Your task to perform on an android device: Clear the shopping cart on target. Add beats solo 3 to the cart on target Image 0: 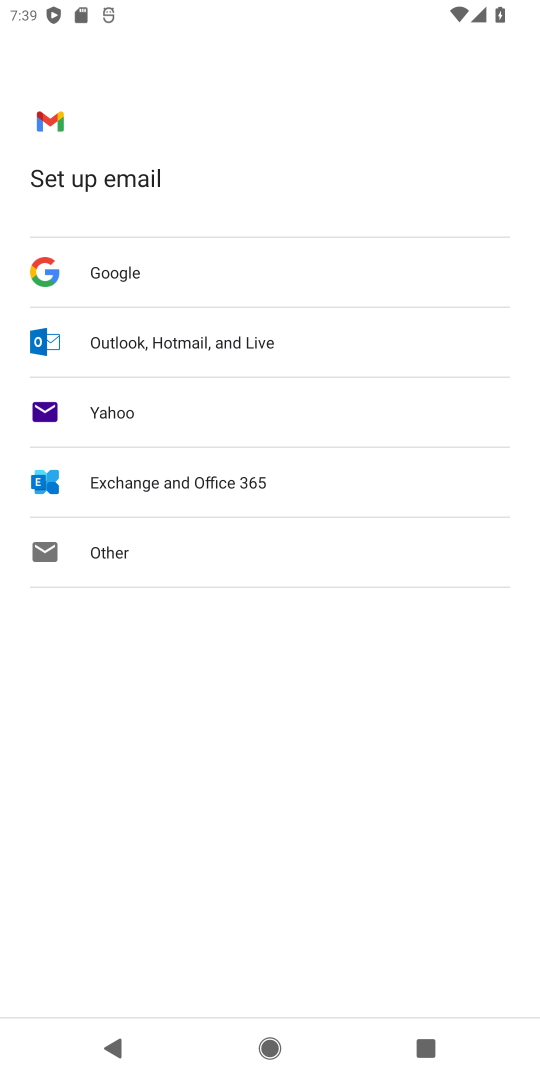
Step 0: press home button
Your task to perform on an android device: Clear the shopping cart on target. Add beats solo 3 to the cart on target Image 1: 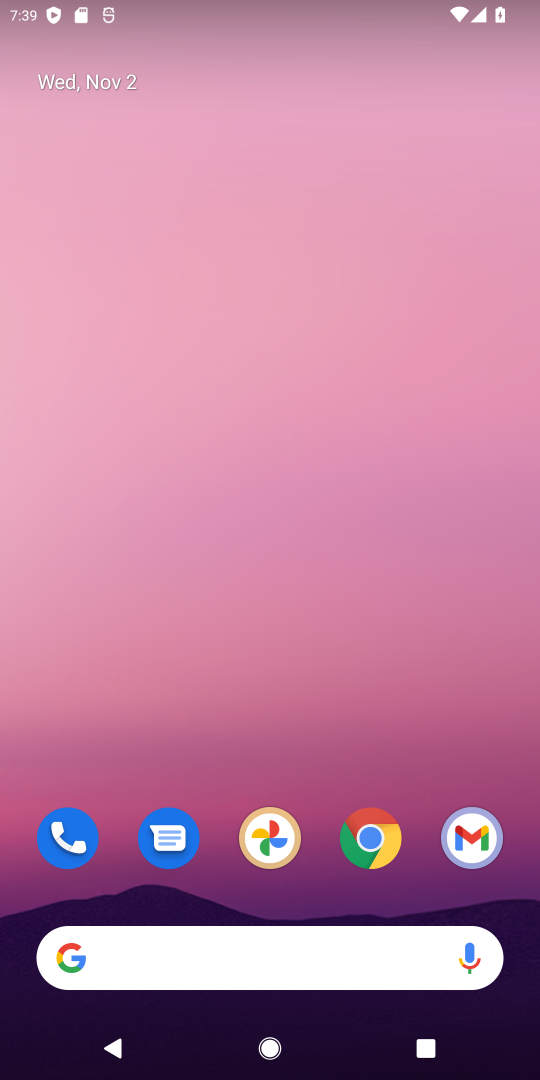
Step 1: click (382, 850)
Your task to perform on an android device: Clear the shopping cart on target. Add beats solo 3 to the cart on target Image 2: 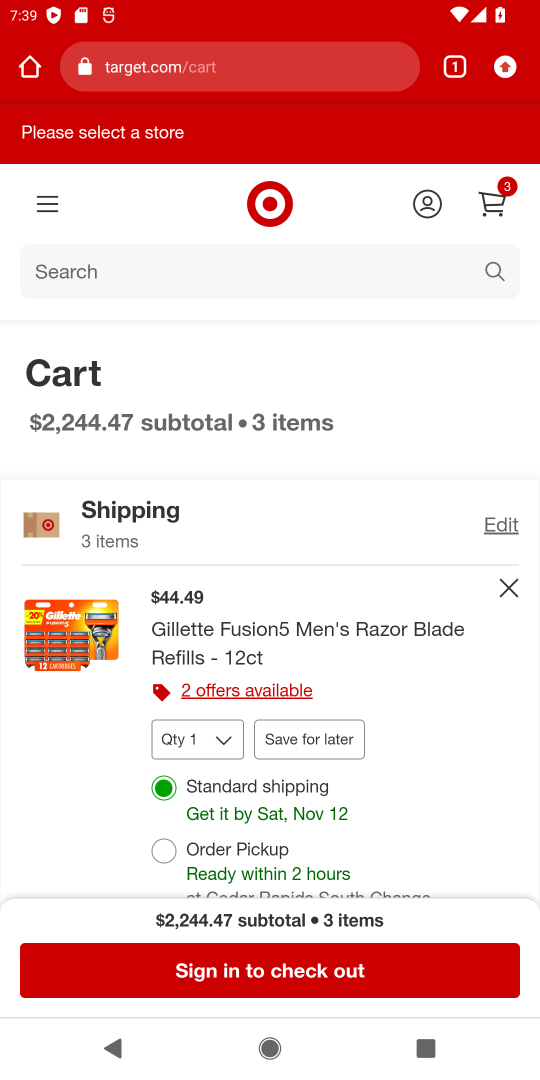
Step 2: click (235, 61)
Your task to perform on an android device: Clear the shopping cart on target. Add beats solo 3 to the cart on target Image 3: 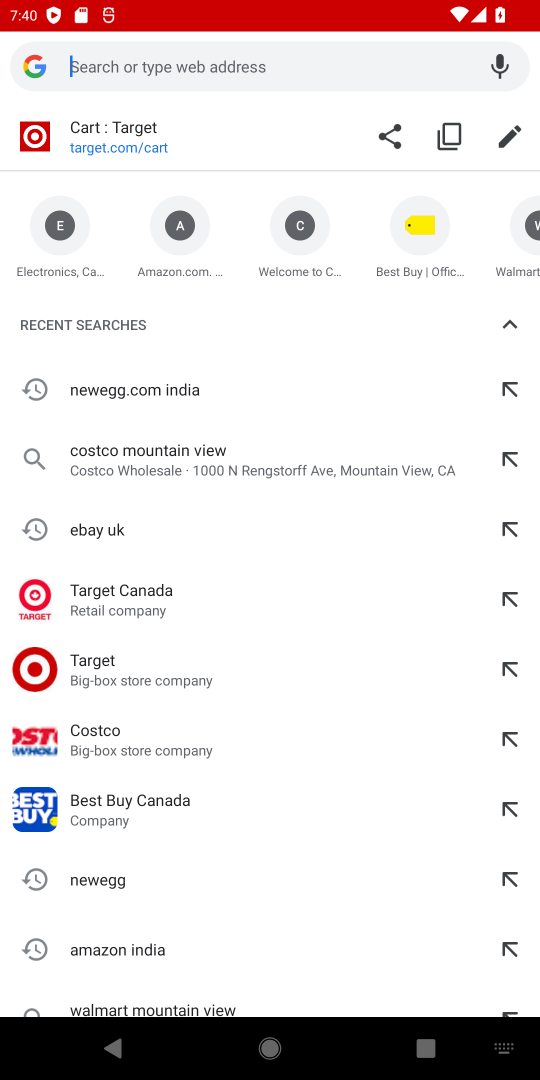
Step 3: type "target"
Your task to perform on an android device: Clear the shopping cart on target. Add beats solo 3 to the cart on target Image 4: 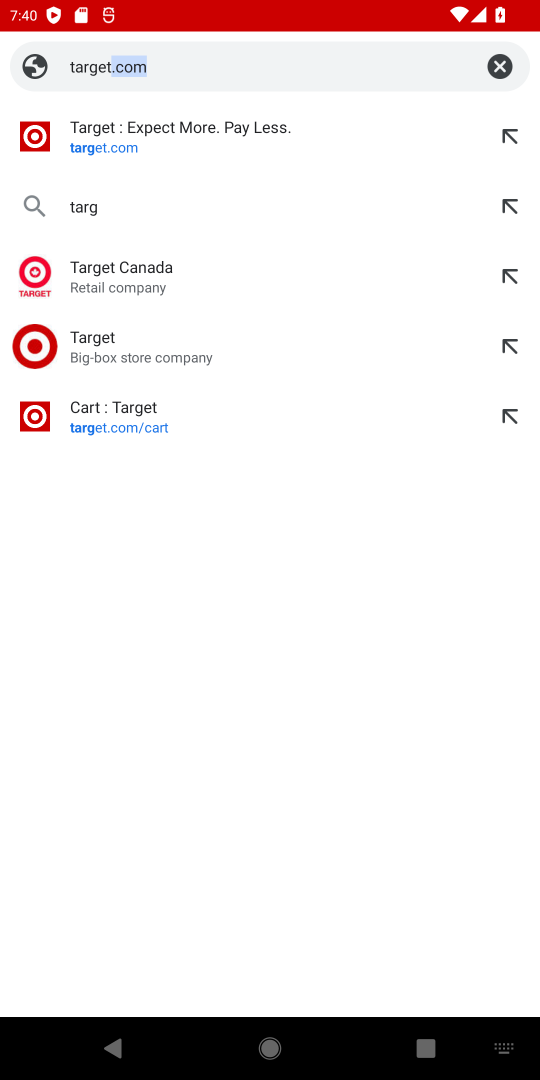
Step 4: type ""
Your task to perform on an android device: Clear the shopping cart on target. Add beats solo 3 to the cart on target Image 5: 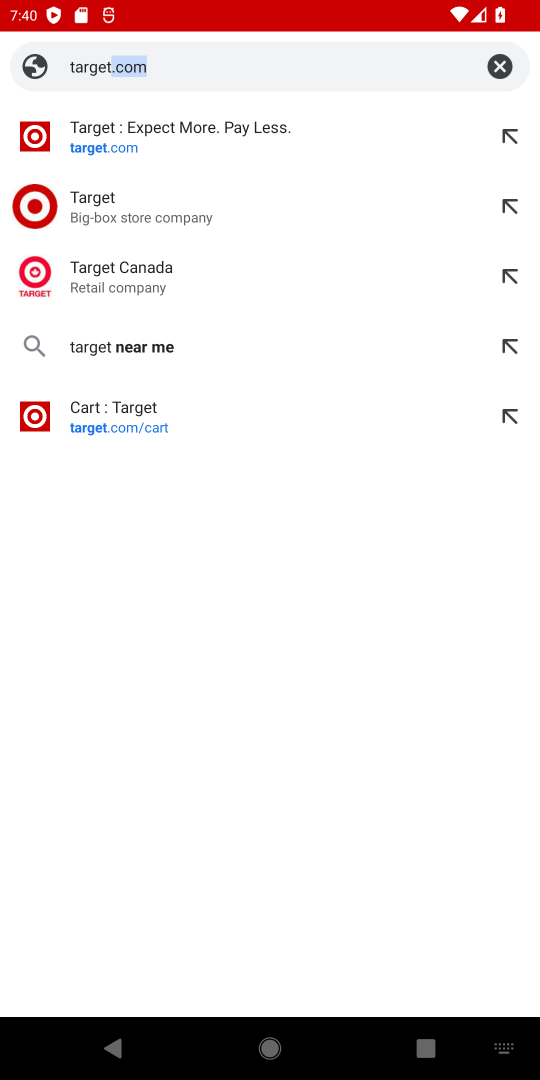
Step 5: press enter
Your task to perform on an android device: Clear the shopping cart on target. Add beats solo 3 to the cart on target Image 6: 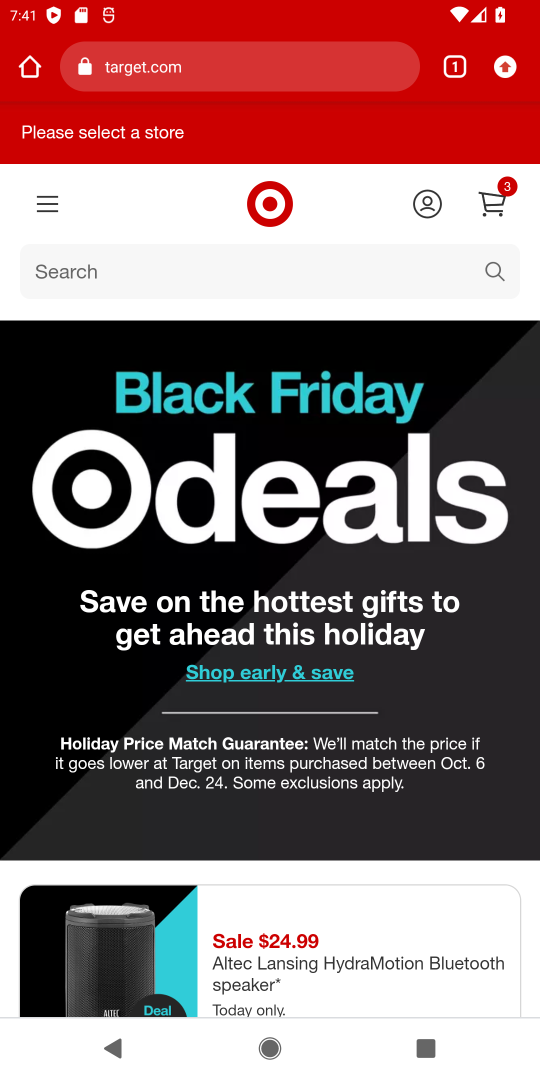
Step 6: click (488, 197)
Your task to perform on an android device: Clear the shopping cart on target. Add beats solo 3 to the cart on target Image 7: 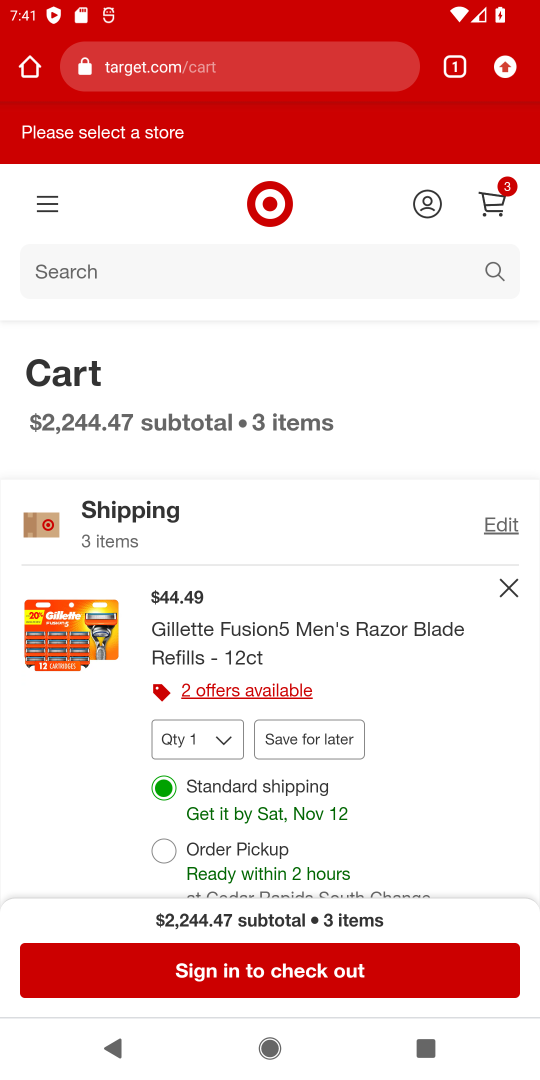
Step 7: click (508, 587)
Your task to perform on an android device: Clear the shopping cart on target. Add beats solo 3 to the cart on target Image 8: 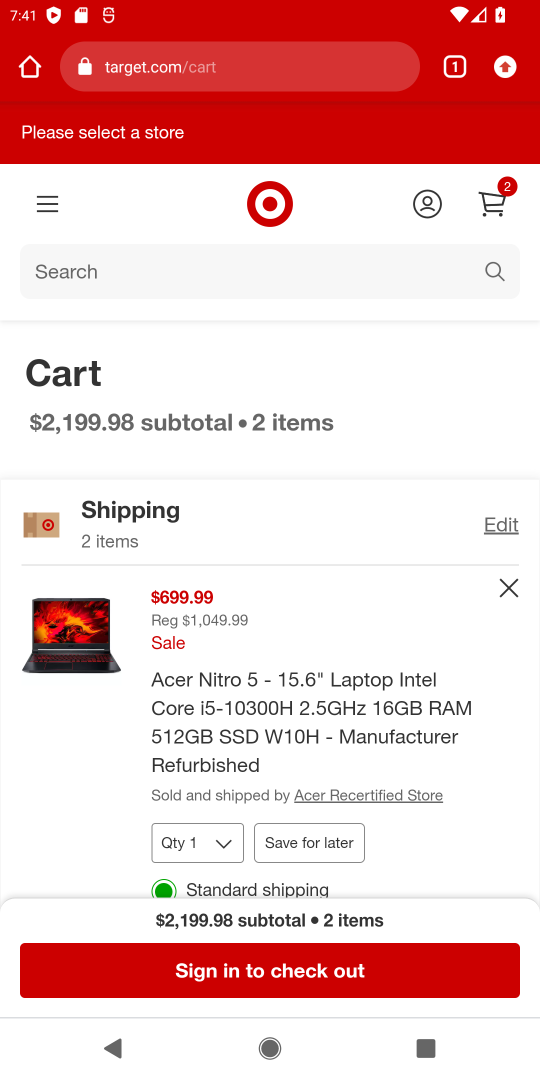
Step 8: click (508, 587)
Your task to perform on an android device: Clear the shopping cart on target. Add beats solo 3 to the cart on target Image 9: 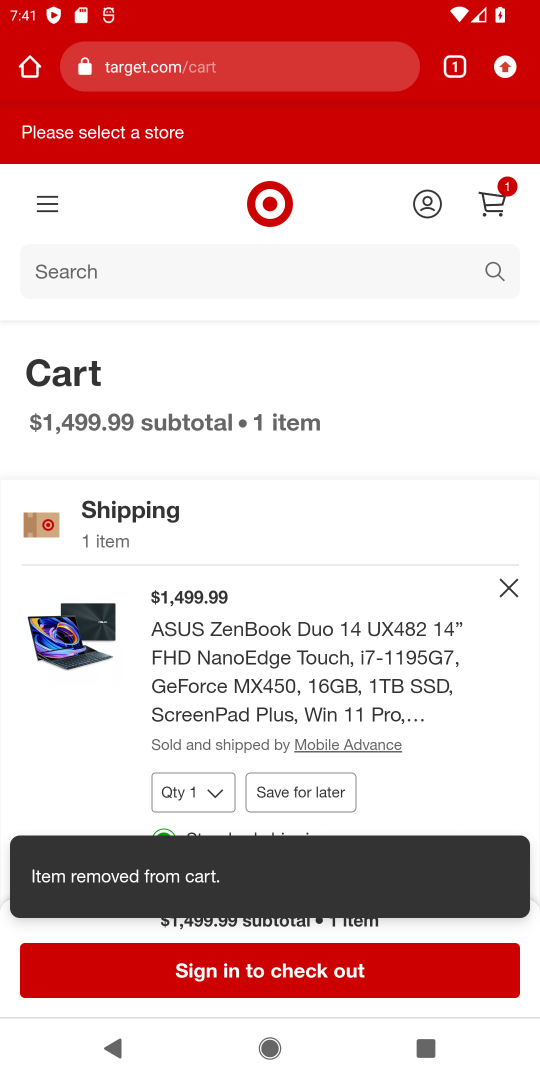
Step 9: click (508, 587)
Your task to perform on an android device: Clear the shopping cart on target. Add beats solo 3 to the cart on target Image 10: 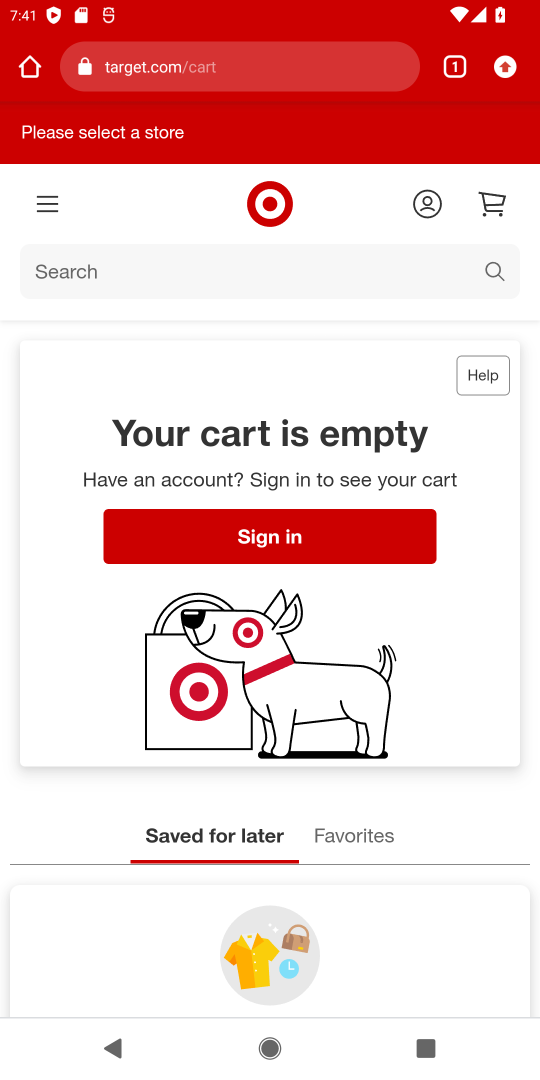
Step 10: click (265, 265)
Your task to perform on an android device: Clear the shopping cart on target. Add beats solo 3 to the cart on target Image 11: 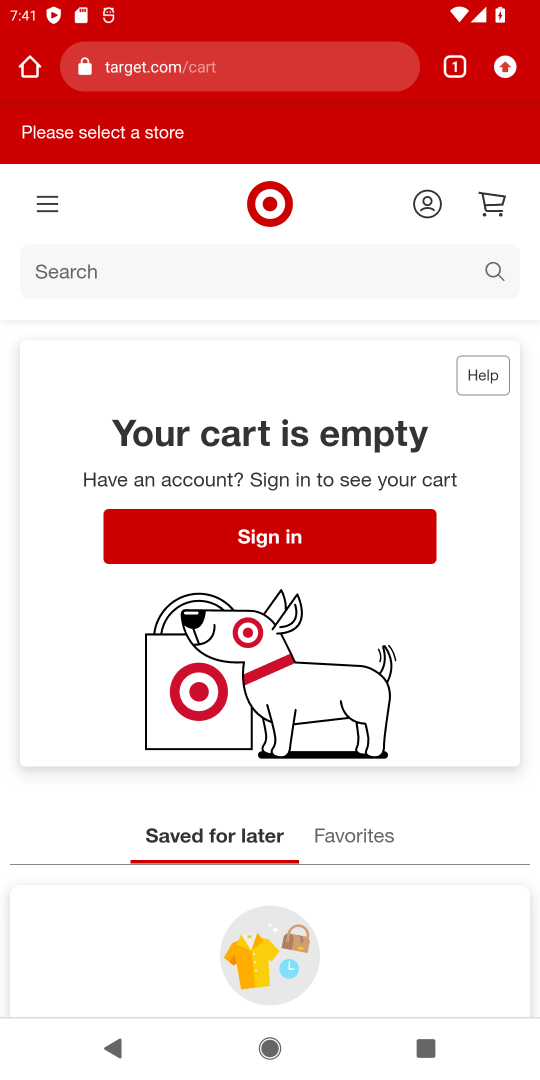
Step 11: type "beats solo 3"
Your task to perform on an android device: Clear the shopping cart on target. Add beats solo 3 to the cart on target Image 12: 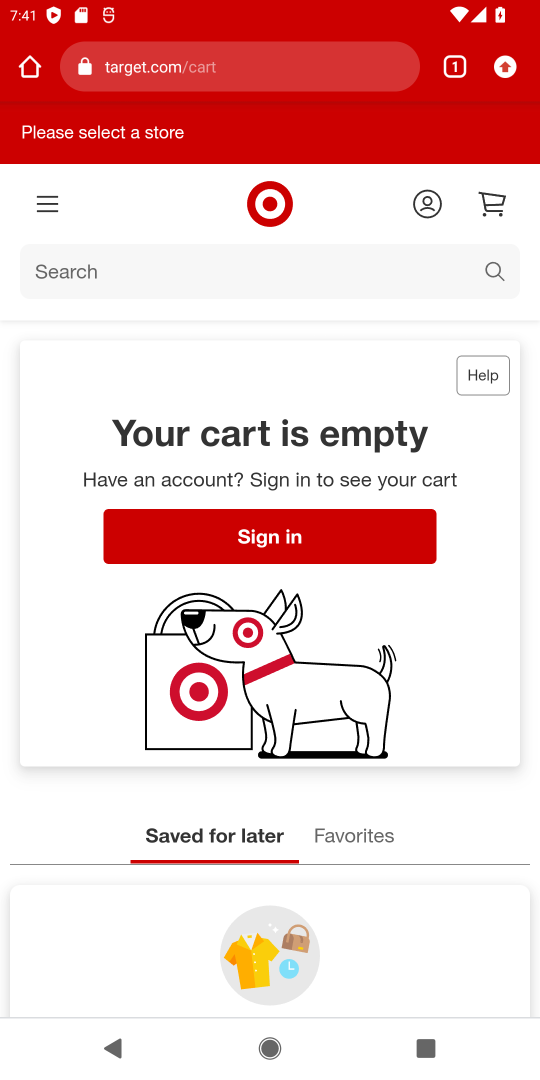
Step 12: type ""
Your task to perform on an android device: Clear the shopping cart on target. Add beats solo 3 to the cart on target Image 13: 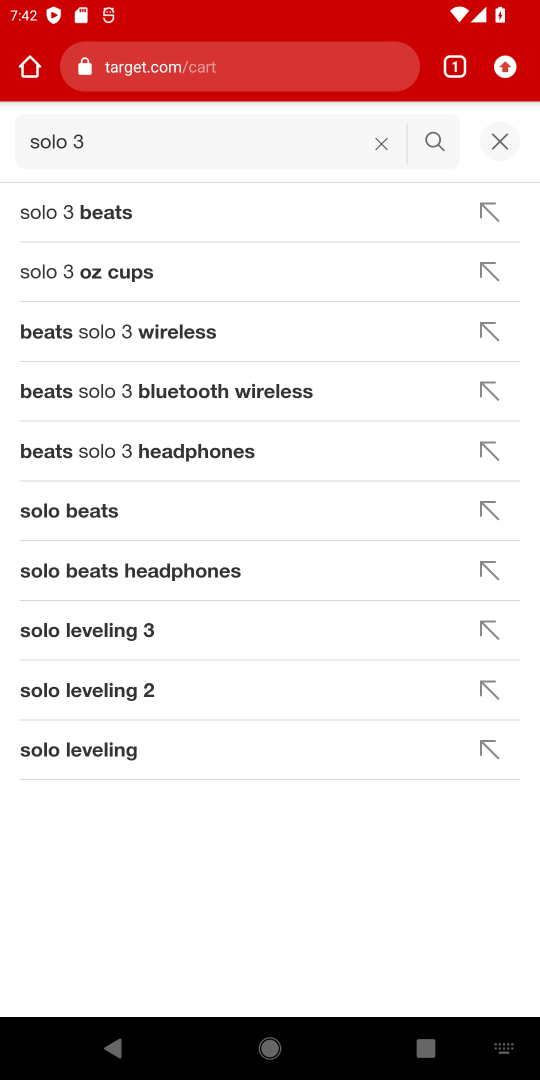
Step 13: click (376, 142)
Your task to perform on an android device: Clear the shopping cart on target. Add beats solo 3 to the cart on target Image 14: 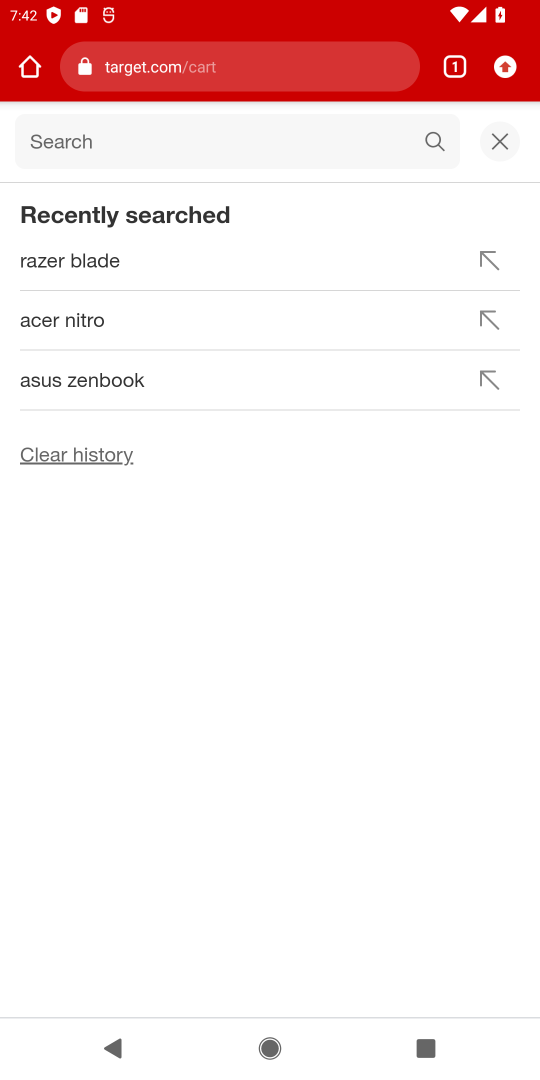
Step 14: type "beats solo 3"
Your task to perform on an android device: Clear the shopping cart on target. Add beats solo 3 to the cart on target Image 15: 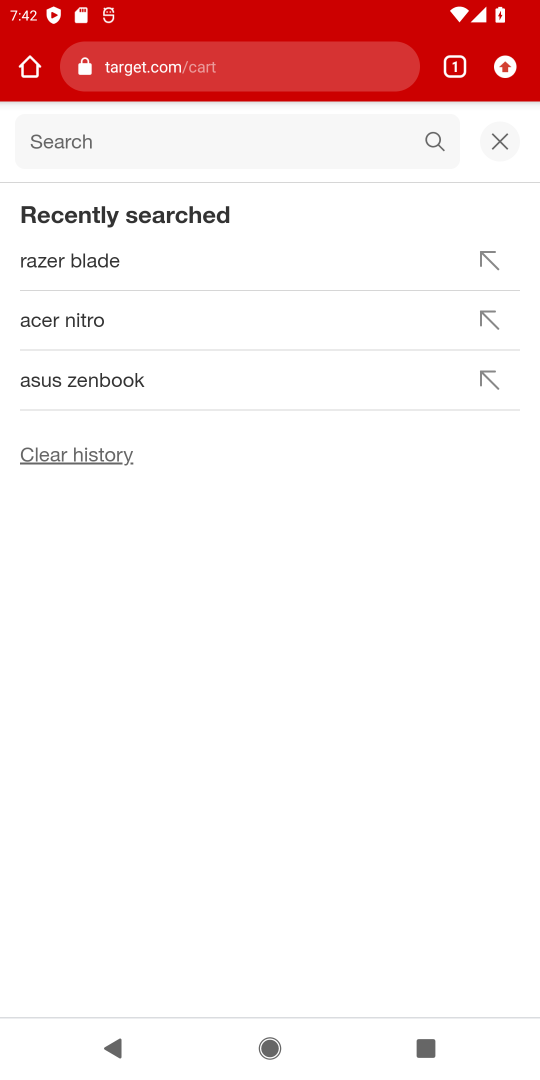
Step 15: type ""
Your task to perform on an android device: Clear the shopping cart on target. Add beats solo 3 to the cart on target Image 16: 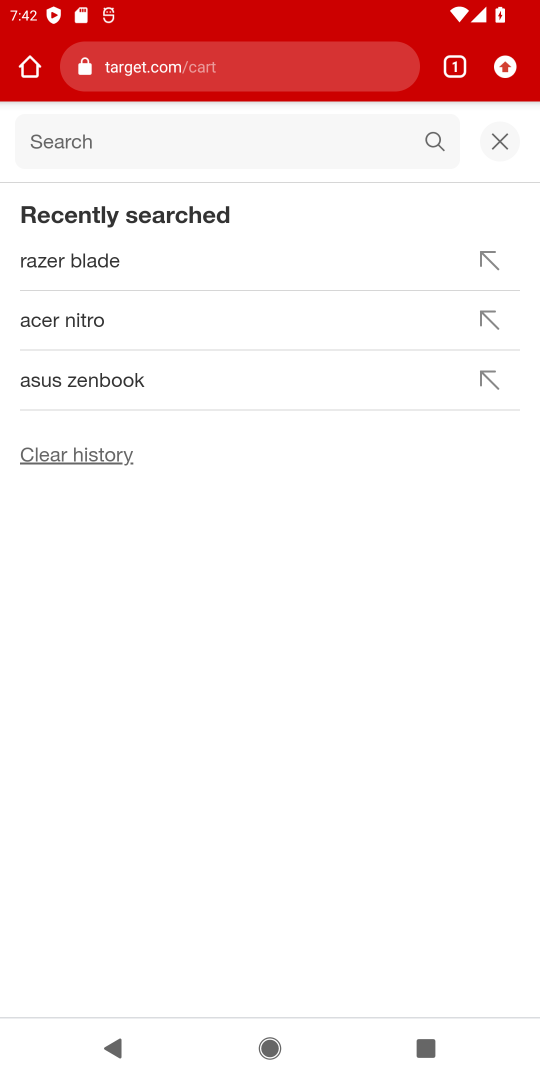
Step 16: click (497, 137)
Your task to perform on an android device: Clear the shopping cart on target. Add beats solo 3 to the cart on target Image 17: 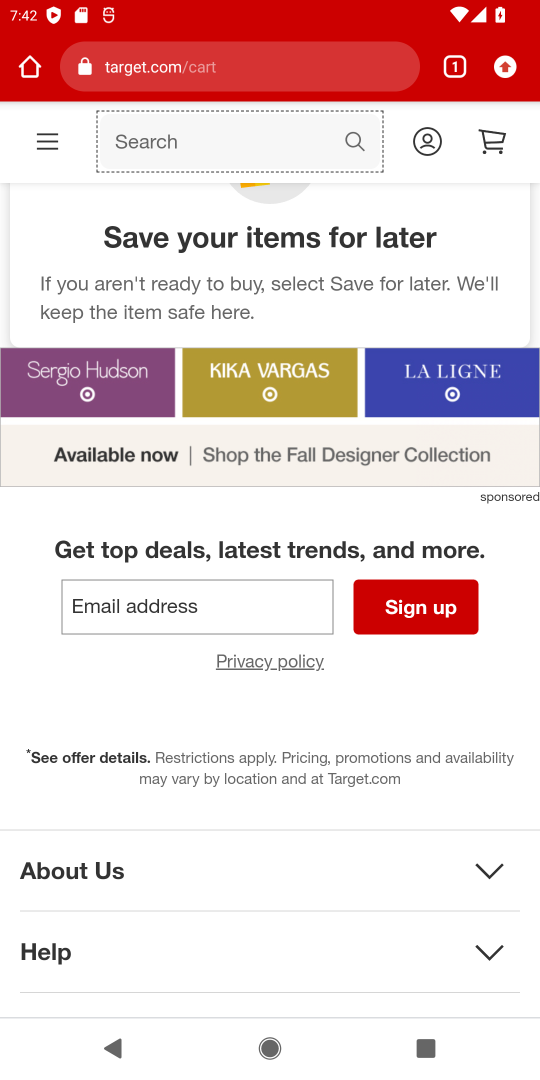
Step 17: click (148, 138)
Your task to perform on an android device: Clear the shopping cart on target. Add beats solo 3 to the cart on target Image 18: 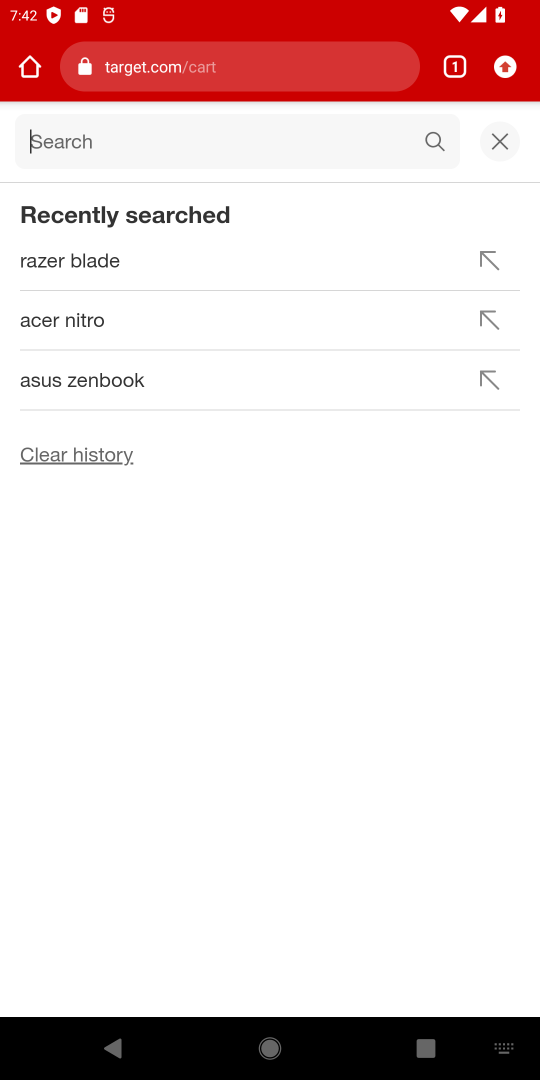
Step 18: type "beats solo 3"
Your task to perform on an android device: Clear the shopping cart on target. Add beats solo 3 to the cart on target Image 19: 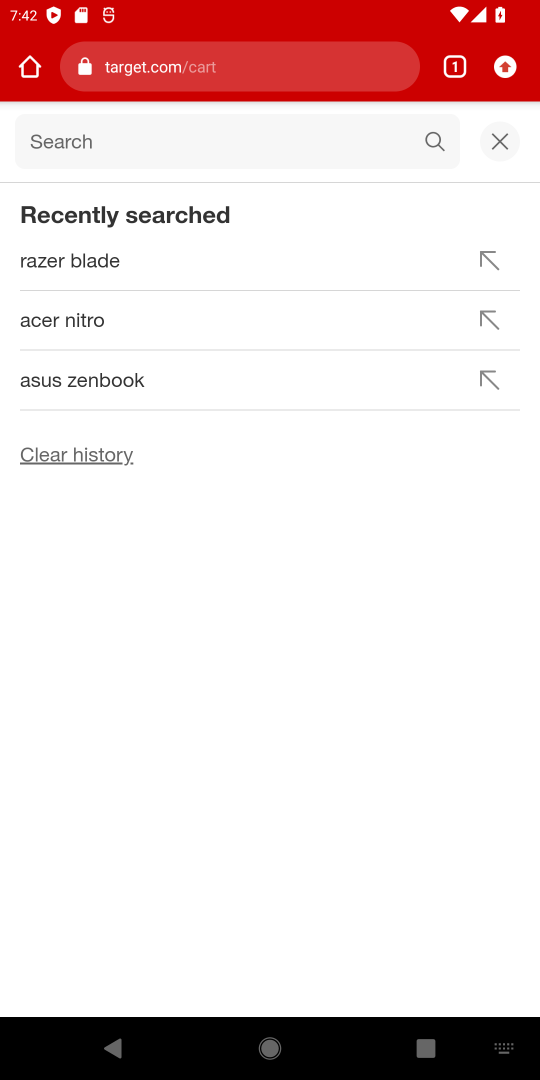
Step 19: type ""
Your task to perform on an android device: Clear the shopping cart on target. Add beats solo 3 to the cart on target Image 20: 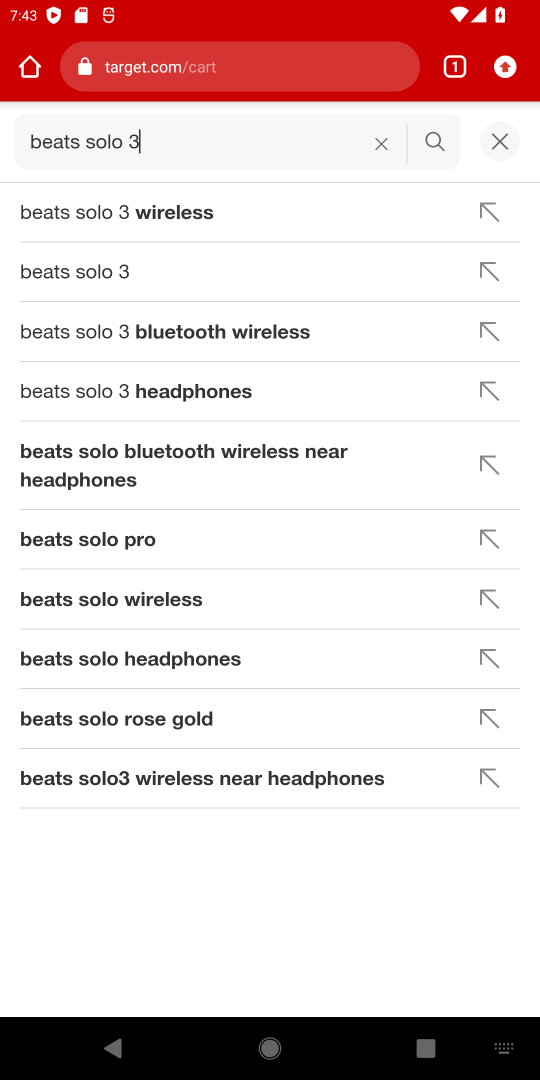
Step 20: press enter
Your task to perform on an android device: Clear the shopping cart on target. Add beats solo 3 to the cart on target Image 21: 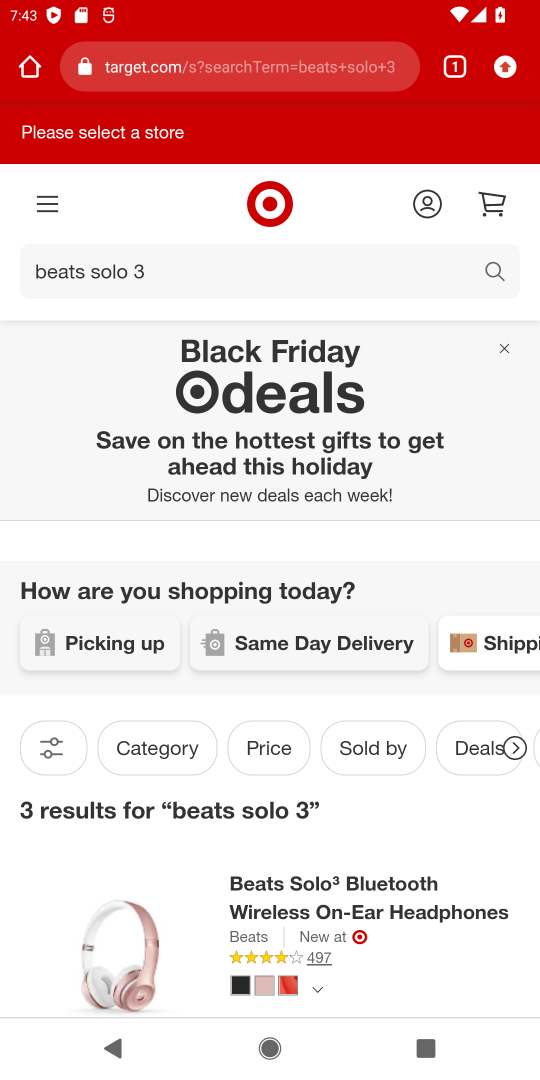
Step 21: drag from (393, 859) to (392, 542)
Your task to perform on an android device: Clear the shopping cart on target. Add beats solo 3 to the cart on target Image 22: 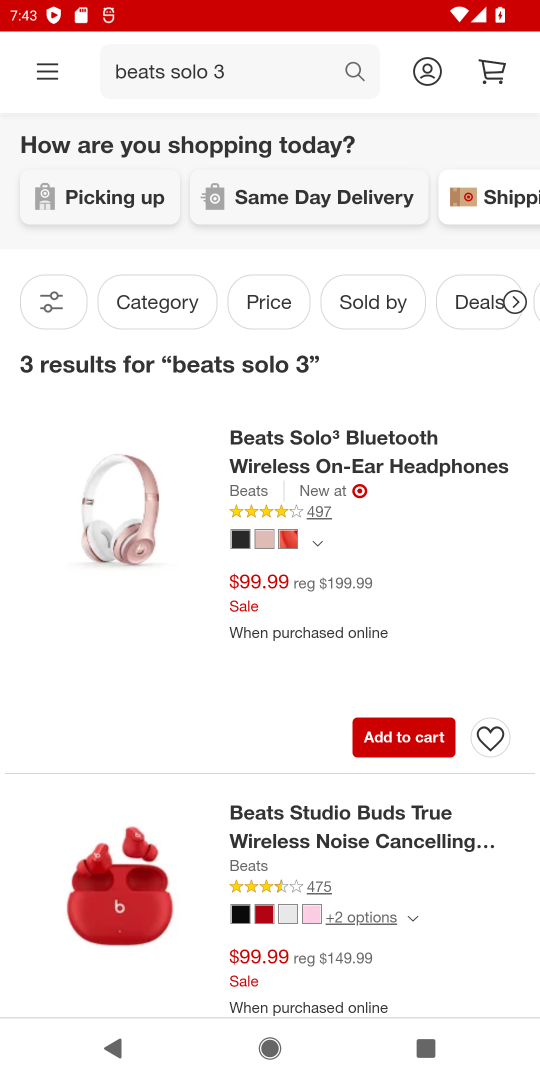
Step 22: click (386, 438)
Your task to perform on an android device: Clear the shopping cart on target. Add beats solo 3 to the cart on target Image 23: 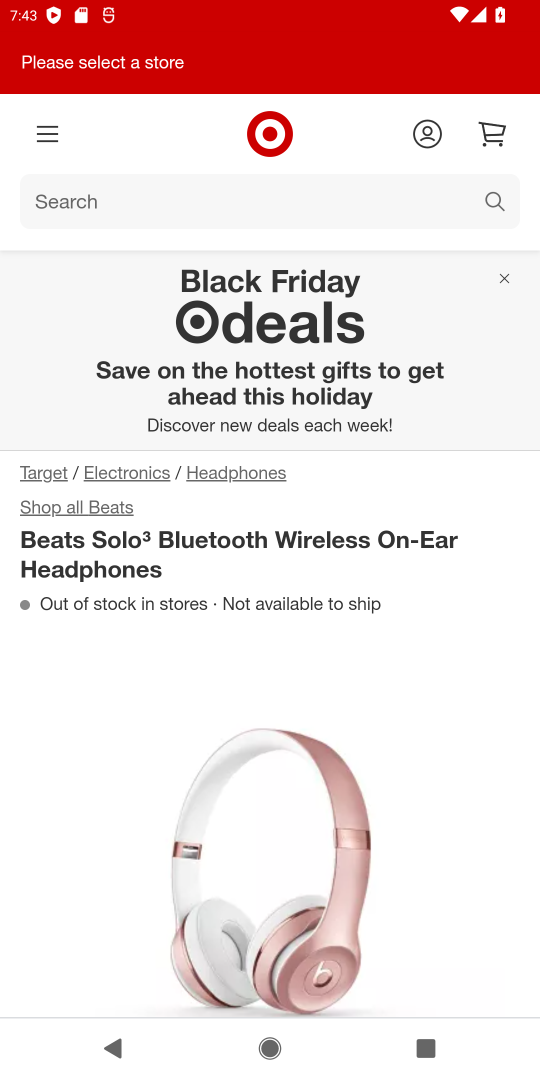
Step 23: drag from (396, 795) to (353, 322)
Your task to perform on an android device: Clear the shopping cart on target. Add beats solo 3 to the cart on target Image 24: 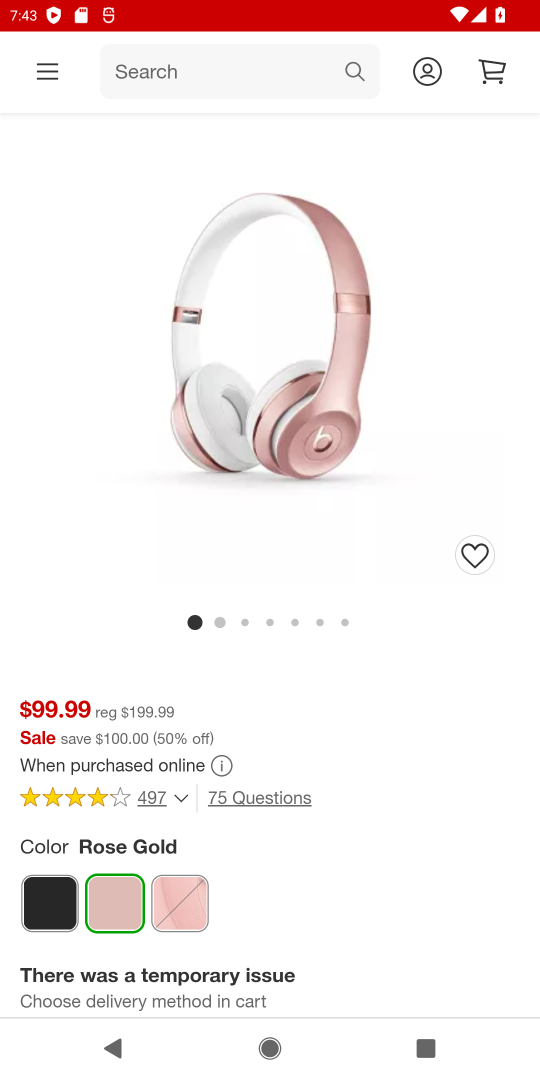
Step 24: drag from (308, 825) to (335, 486)
Your task to perform on an android device: Clear the shopping cart on target. Add beats solo 3 to the cart on target Image 25: 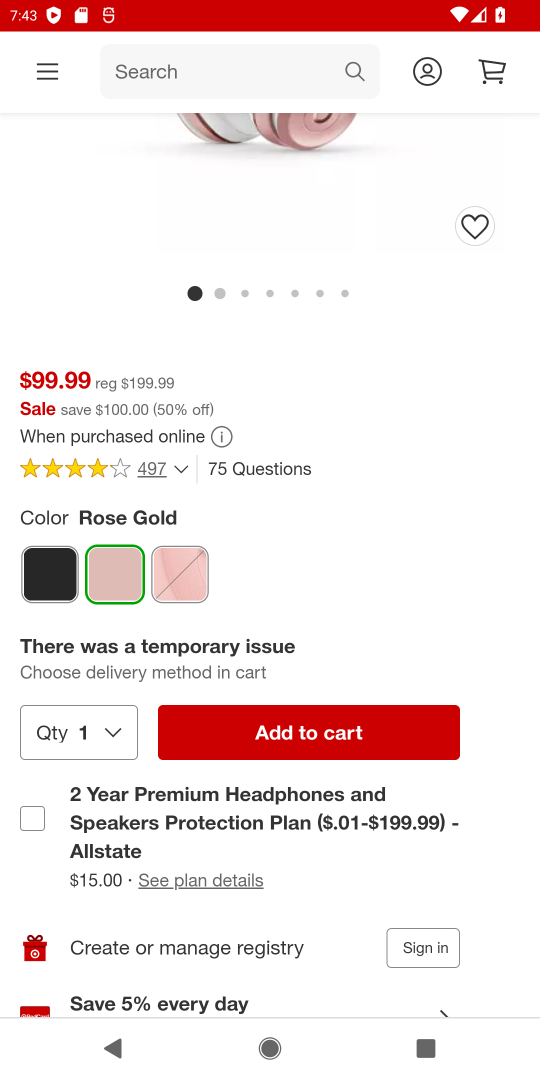
Step 25: click (375, 727)
Your task to perform on an android device: Clear the shopping cart on target. Add beats solo 3 to the cart on target Image 26: 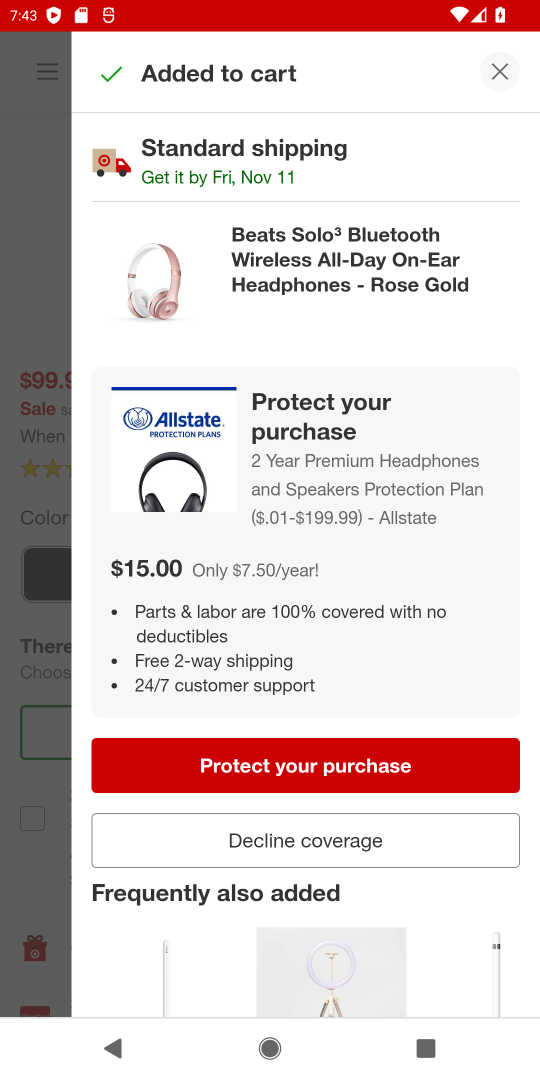
Step 26: click (397, 853)
Your task to perform on an android device: Clear the shopping cart on target. Add beats solo 3 to the cart on target Image 27: 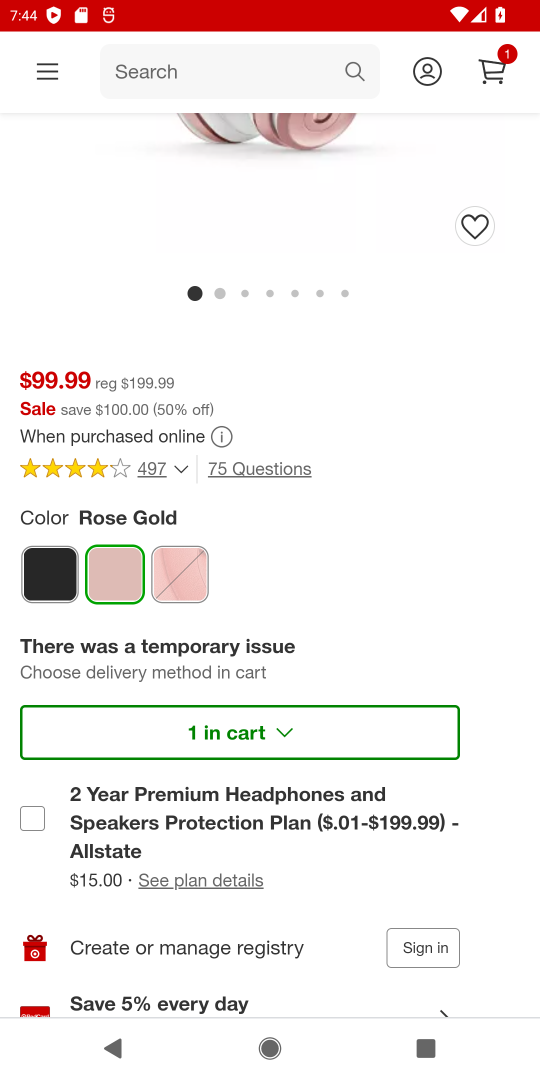
Step 27: click (485, 69)
Your task to perform on an android device: Clear the shopping cart on target. Add beats solo 3 to the cart on target Image 28: 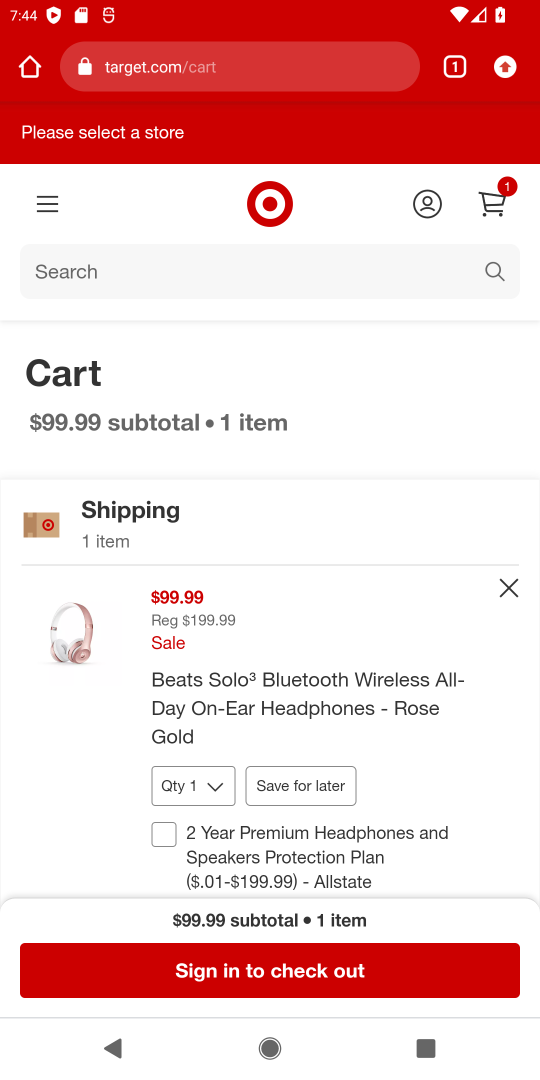
Step 28: task complete